Your task to perform on an android device: turn off translation in the chrome app Image 0: 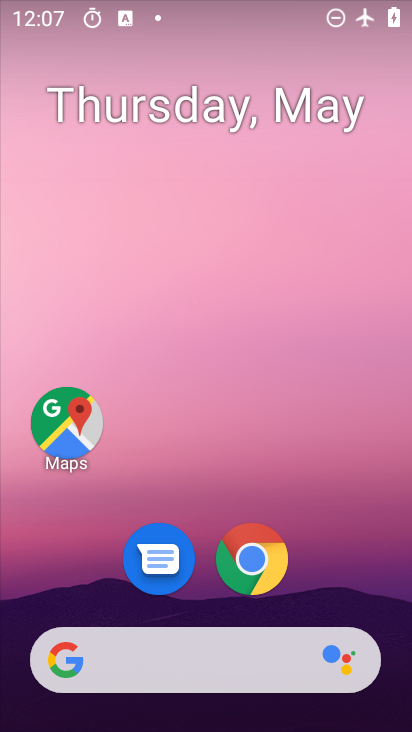
Step 0: drag from (239, 661) to (222, 53)
Your task to perform on an android device: turn off translation in the chrome app Image 1: 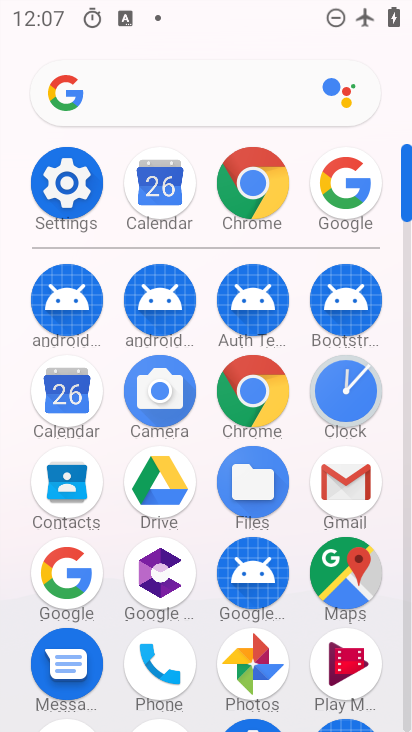
Step 1: click (259, 194)
Your task to perform on an android device: turn off translation in the chrome app Image 2: 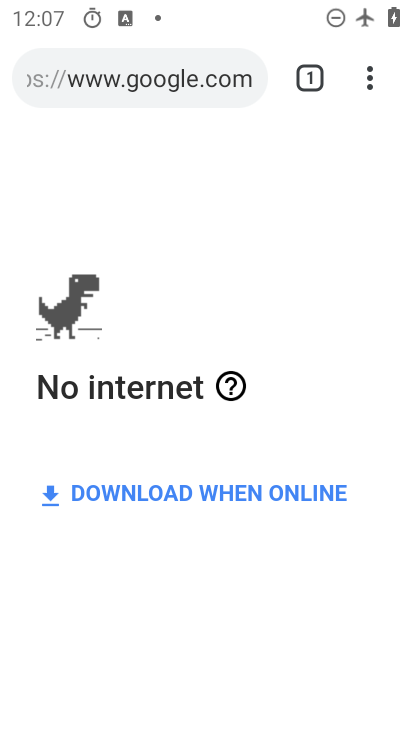
Step 2: click (367, 83)
Your task to perform on an android device: turn off translation in the chrome app Image 3: 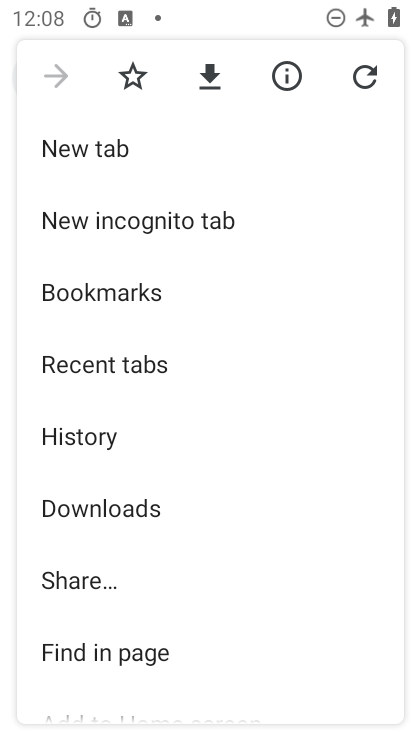
Step 3: task complete